Your task to perform on an android device: open app "Adobe Acrobat Reader" (install if not already installed) Image 0: 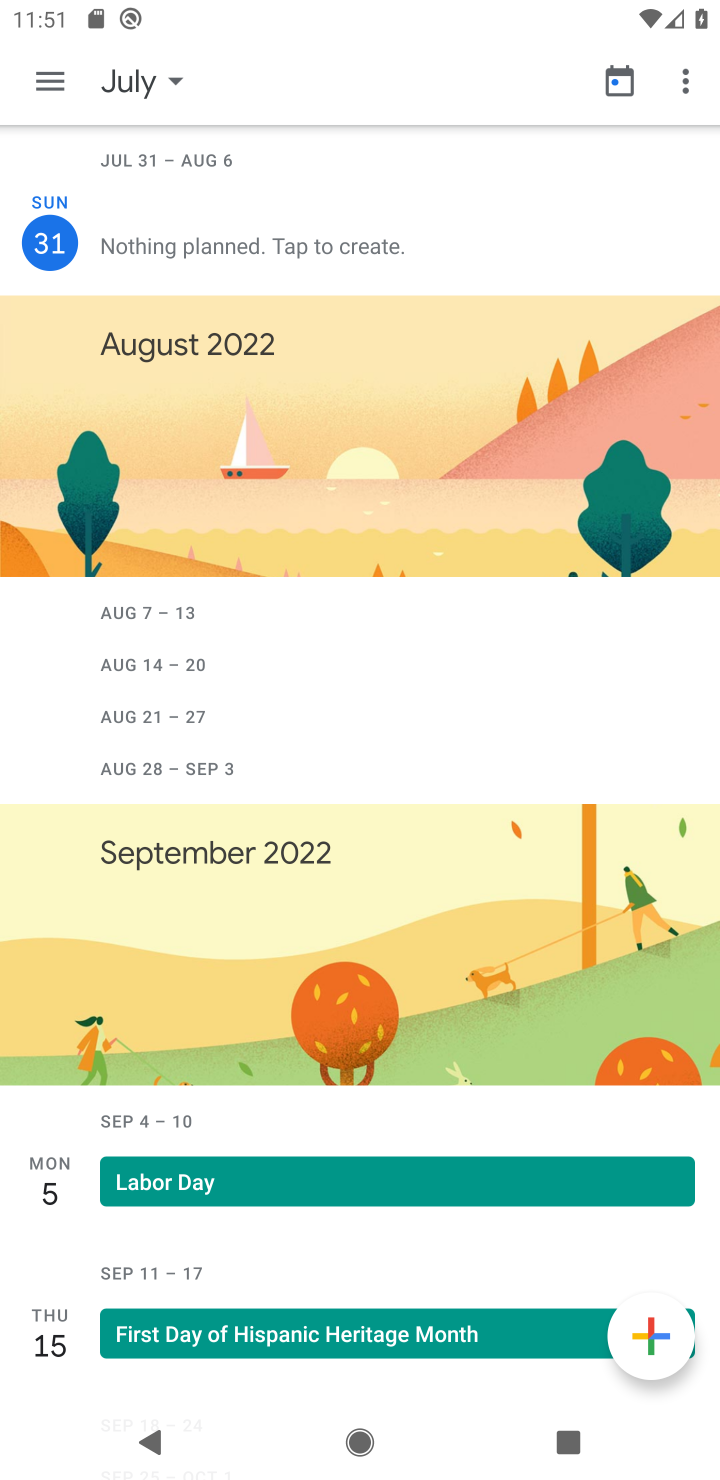
Step 0: press home button
Your task to perform on an android device: open app "Adobe Acrobat Reader" (install if not already installed) Image 1: 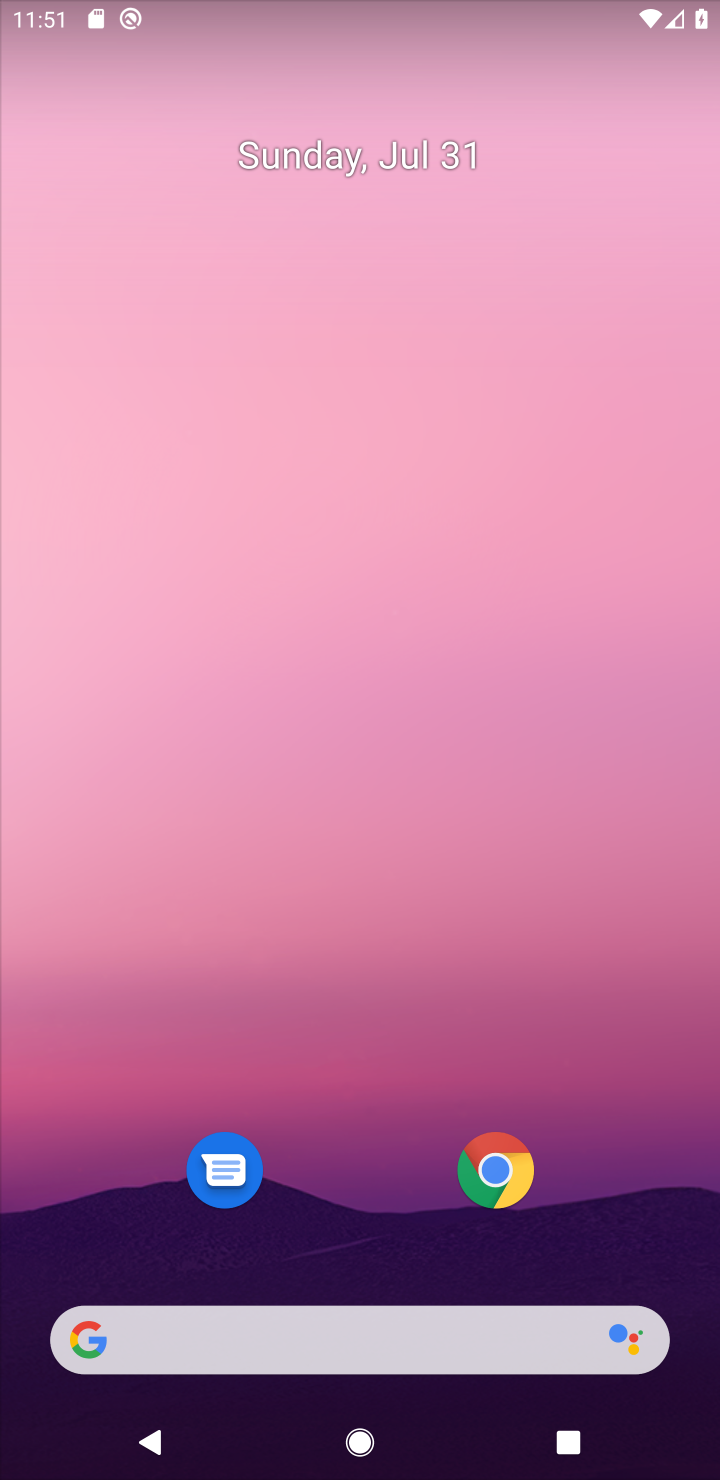
Step 1: drag from (586, 912) to (301, 97)
Your task to perform on an android device: open app "Adobe Acrobat Reader" (install if not already installed) Image 2: 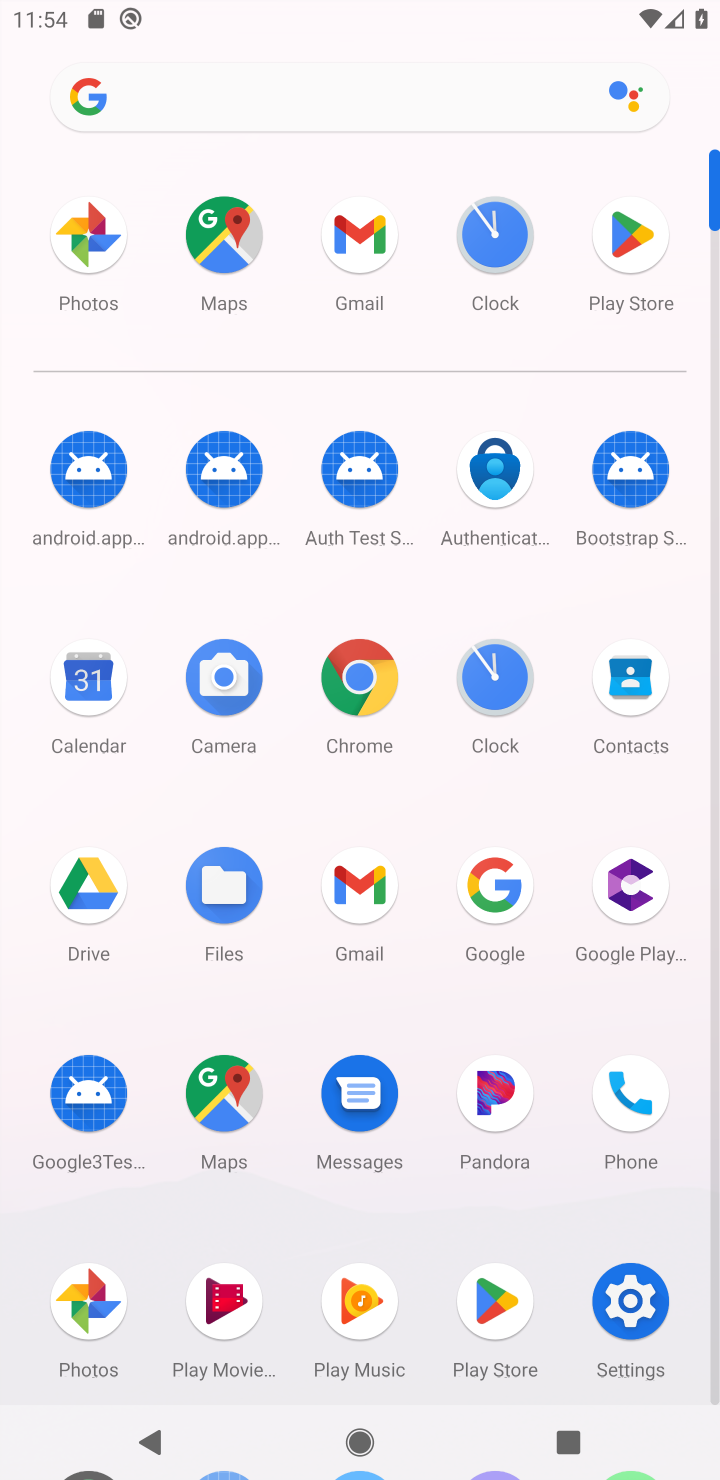
Step 2: click (590, 250)
Your task to perform on an android device: open app "Adobe Acrobat Reader" (install if not already installed) Image 3: 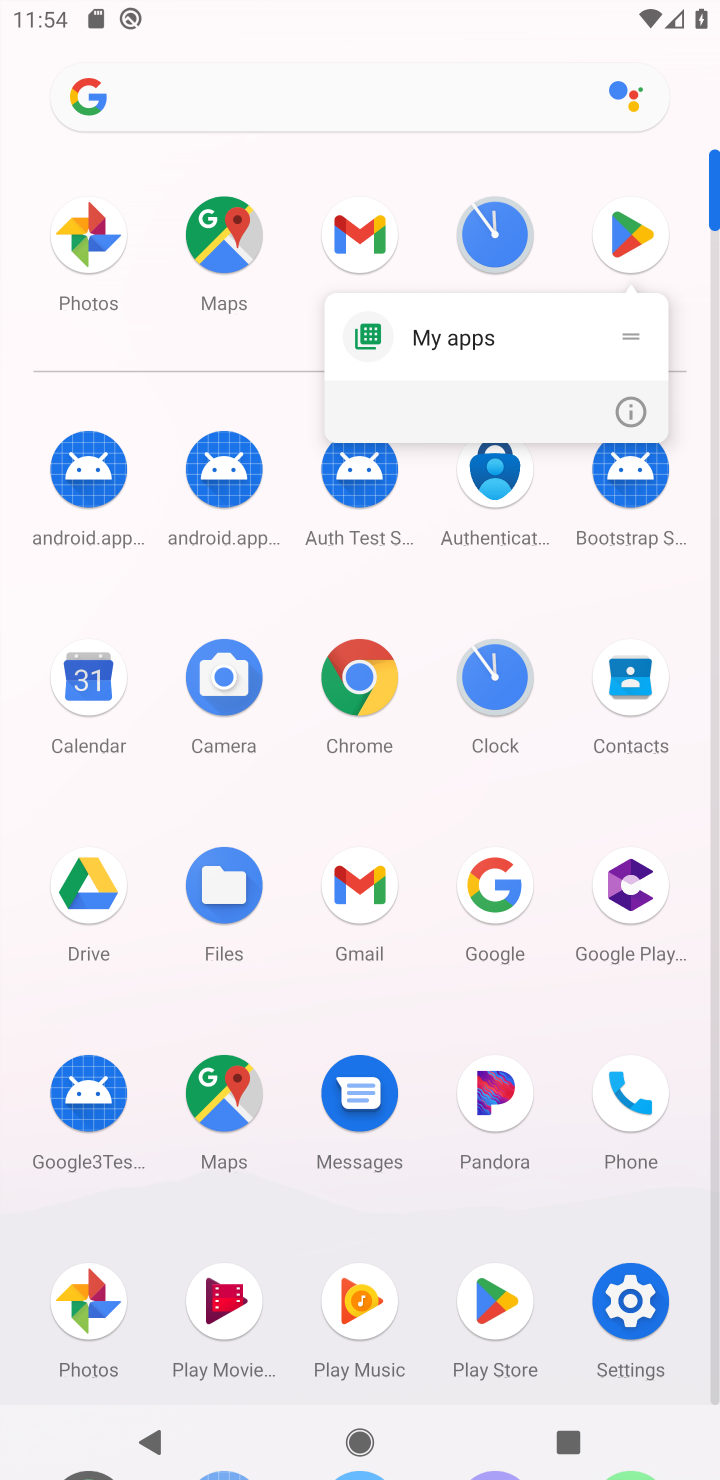
Step 3: click (636, 254)
Your task to perform on an android device: open app "Adobe Acrobat Reader" (install if not already installed) Image 4: 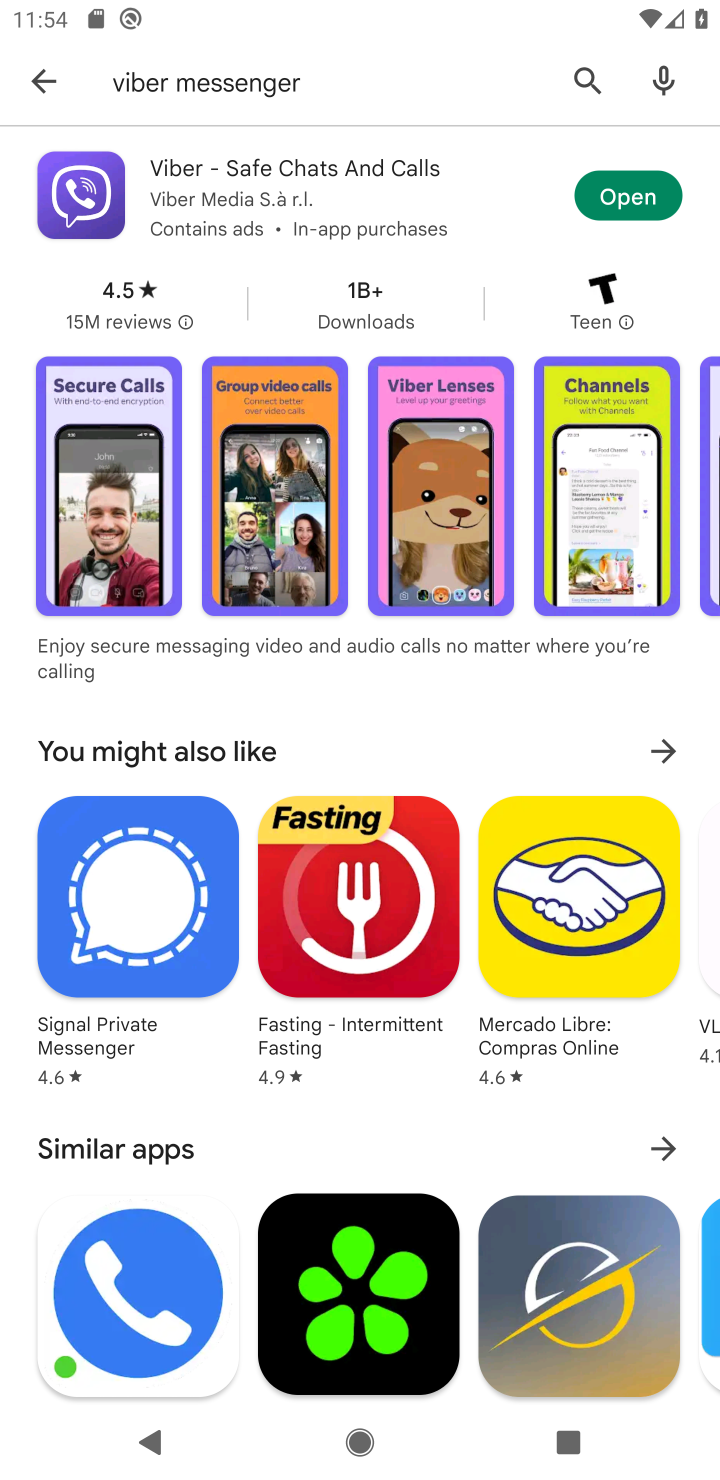
Step 4: press back button
Your task to perform on an android device: open app "Adobe Acrobat Reader" (install if not already installed) Image 5: 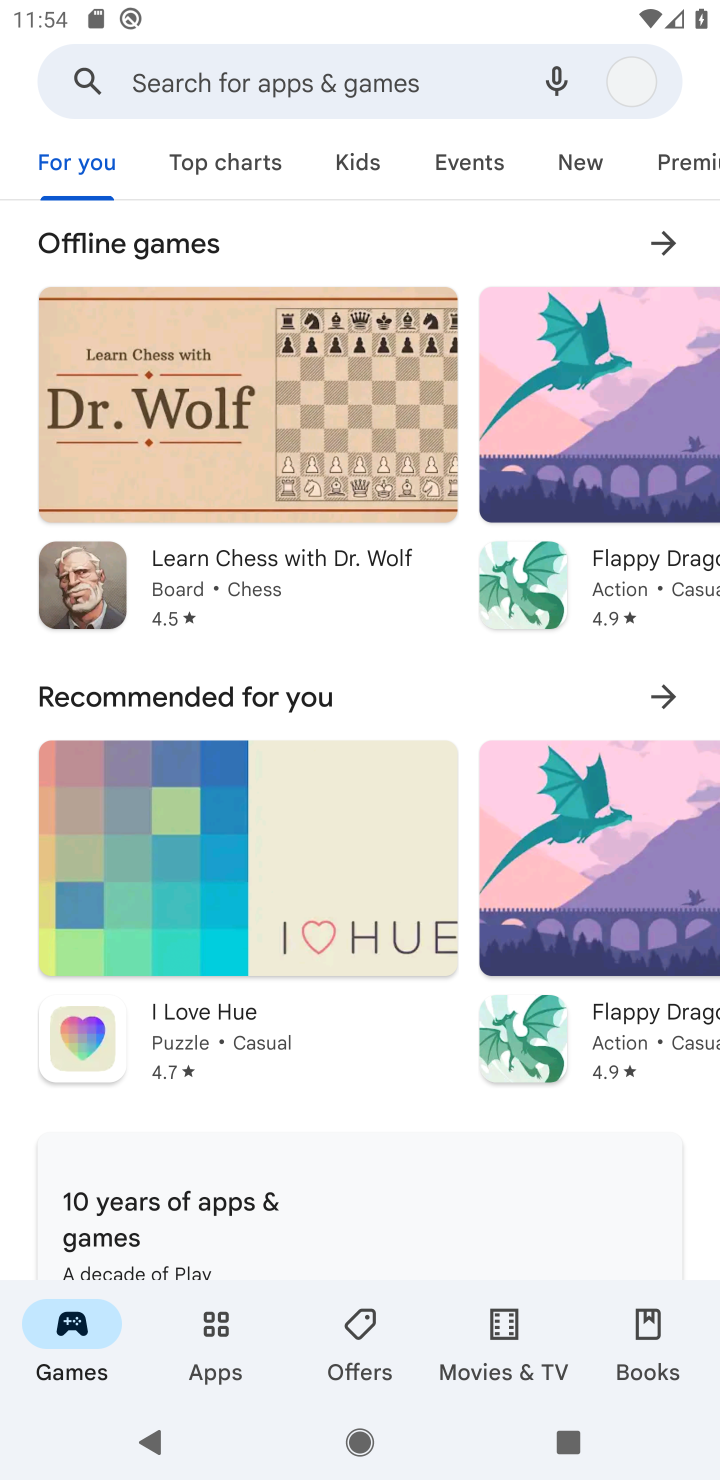
Step 5: click (285, 76)
Your task to perform on an android device: open app "Adobe Acrobat Reader" (install if not already installed) Image 6: 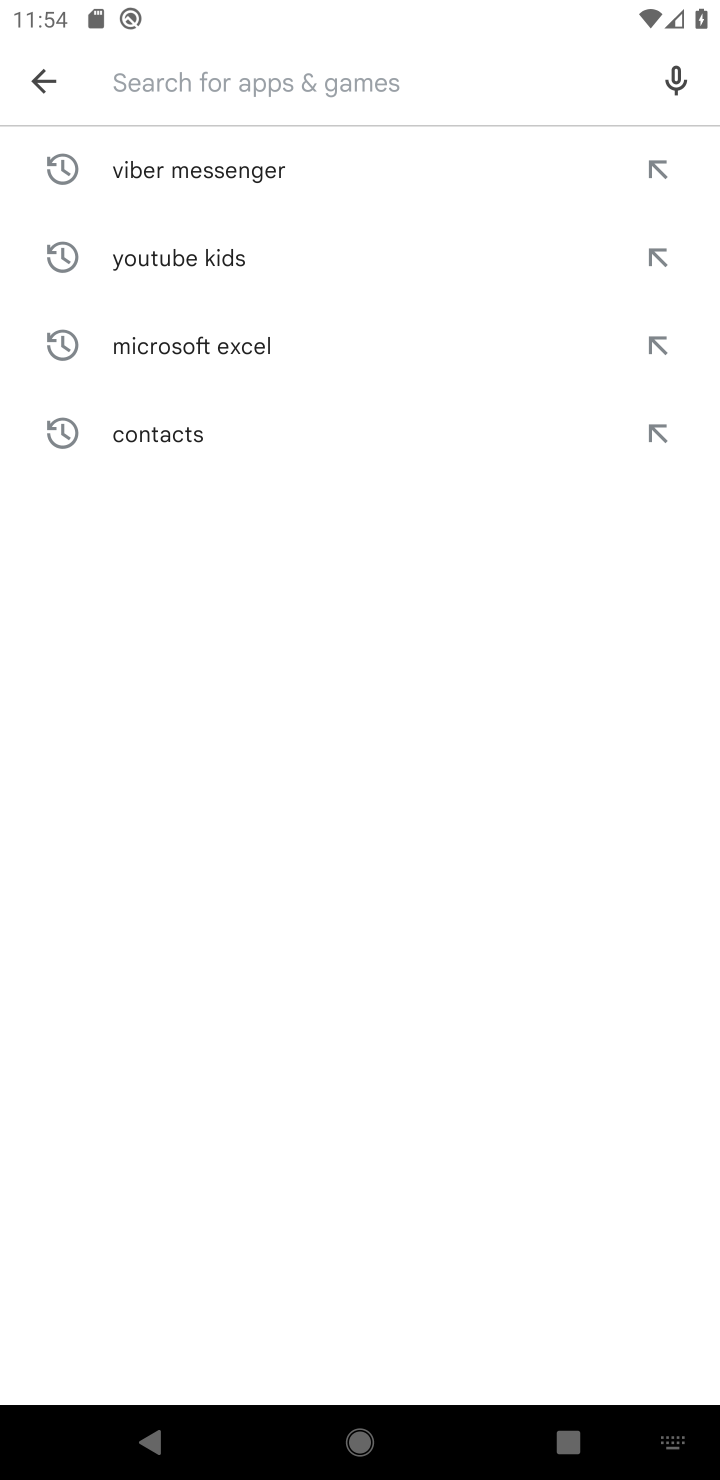
Step 6: type "Adobe Acrobat Reader"
Your task to perform on an android device: open app "Adobe Acrobat Reader" (install if not already installed) Image 7: 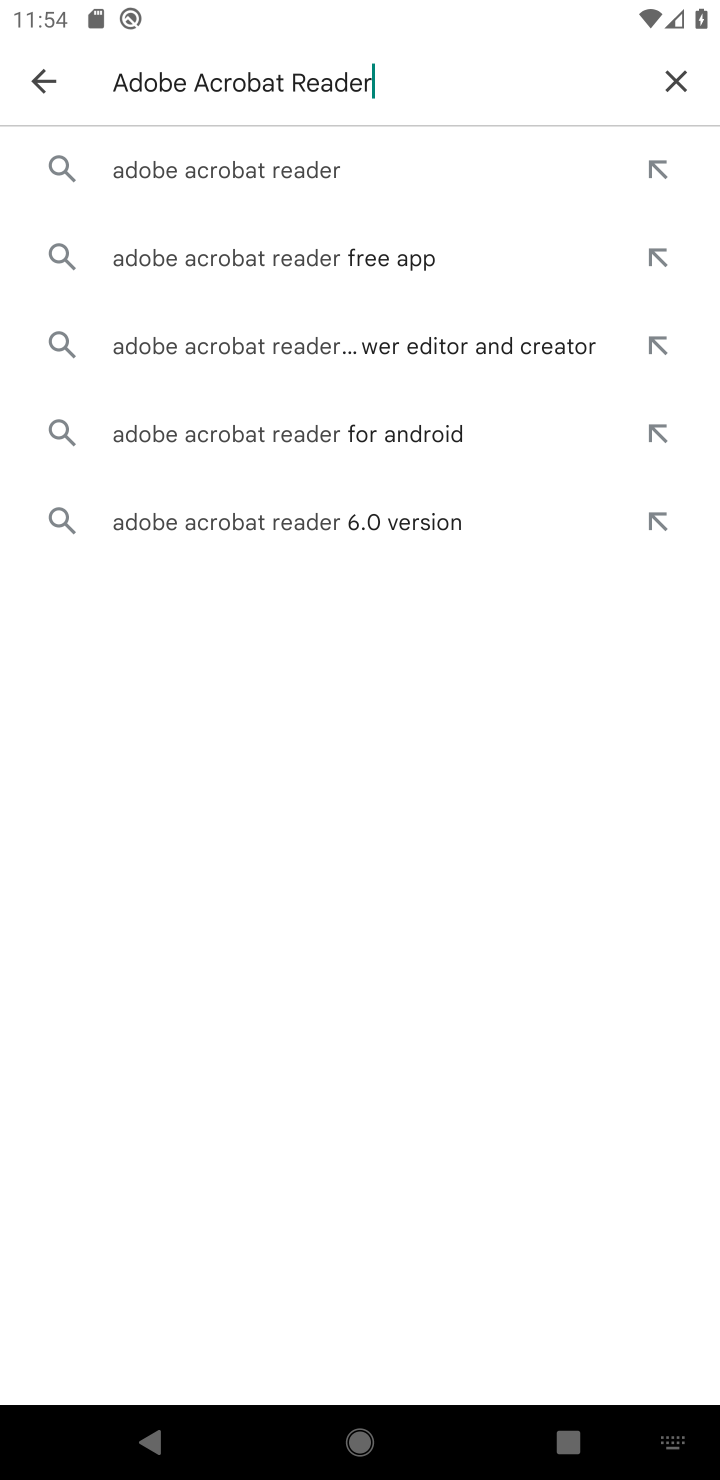
Step 7: click (233, 182)
Your task to perform on an android device: open app "Adobe Acrobat Reader" (install if not already installed) Image 8: 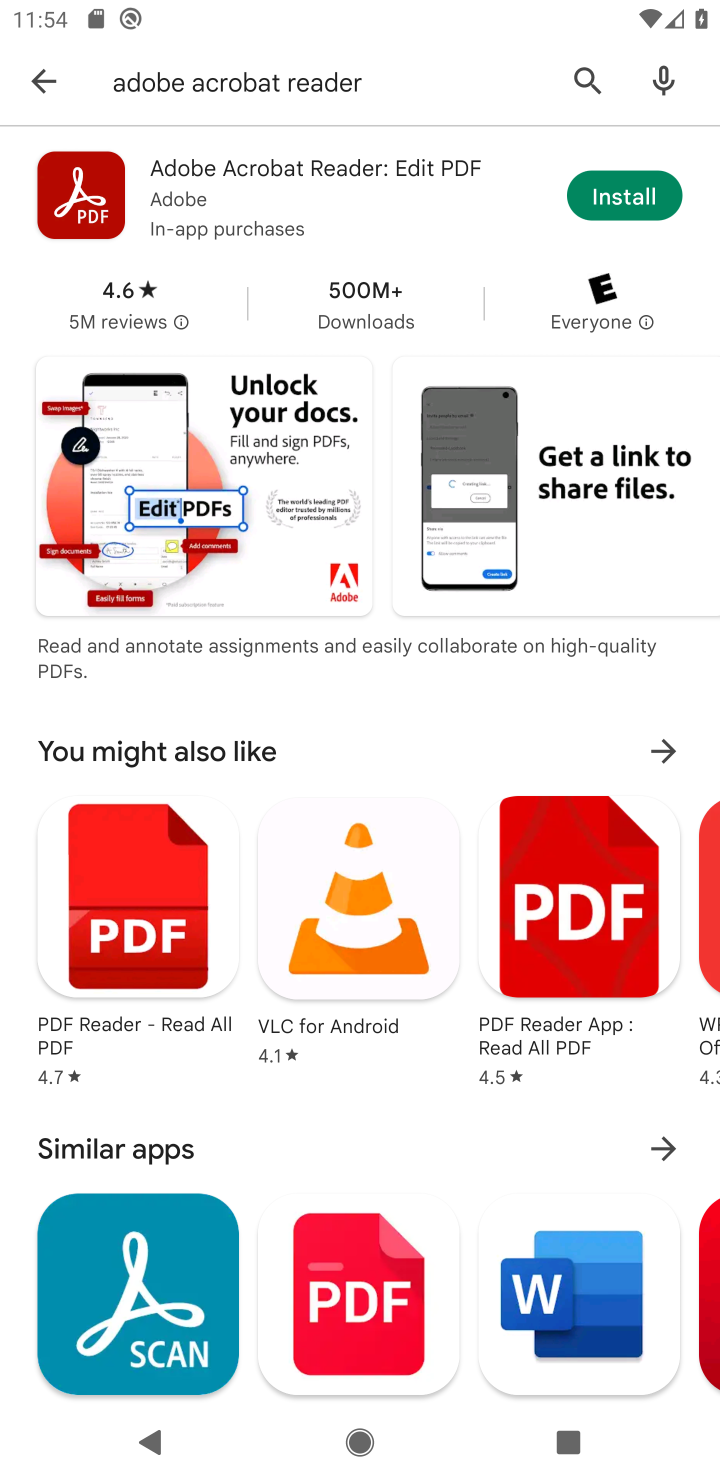
Step 8: task complete